Your task to perform on an android device: What's on my calendar today? Image 0: 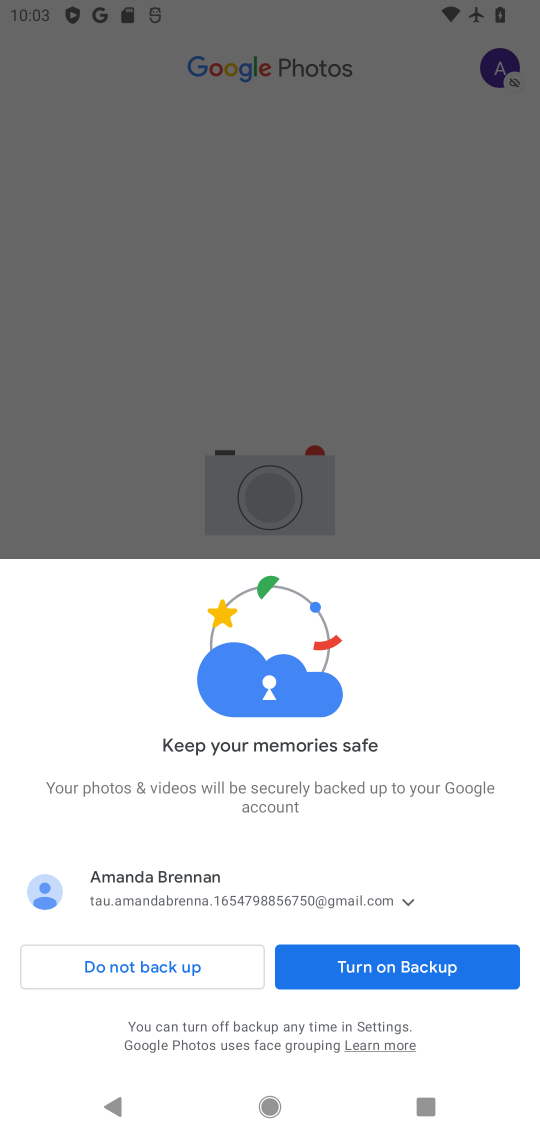
Step 0: press home button
Your task to perform on an android device: What's on my calendar today? Image 1: 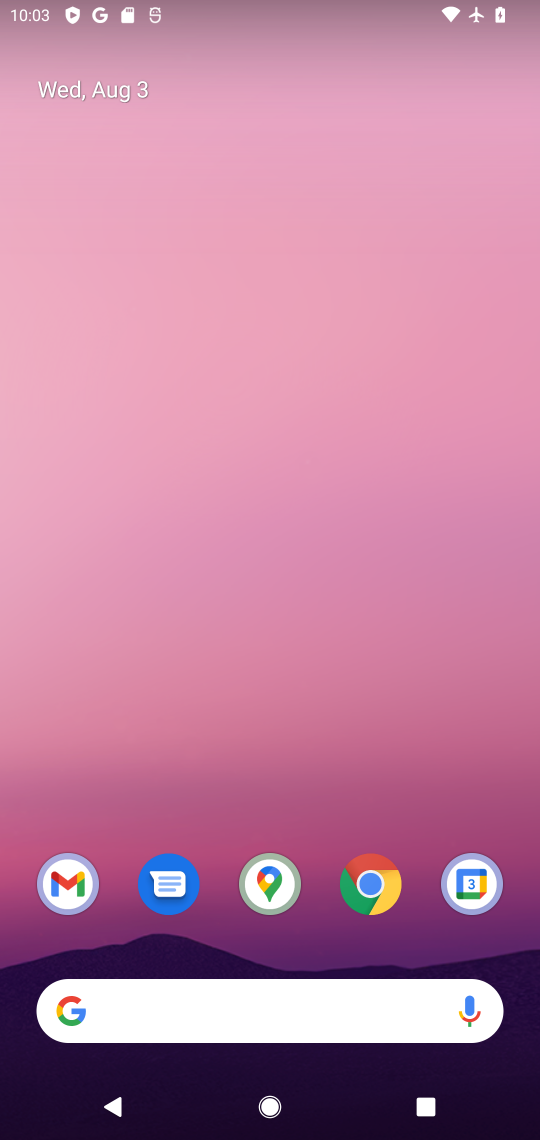
Step 1: click (489, 882)
Your task to perform on an android device: What's on my calendar today? Image 2: 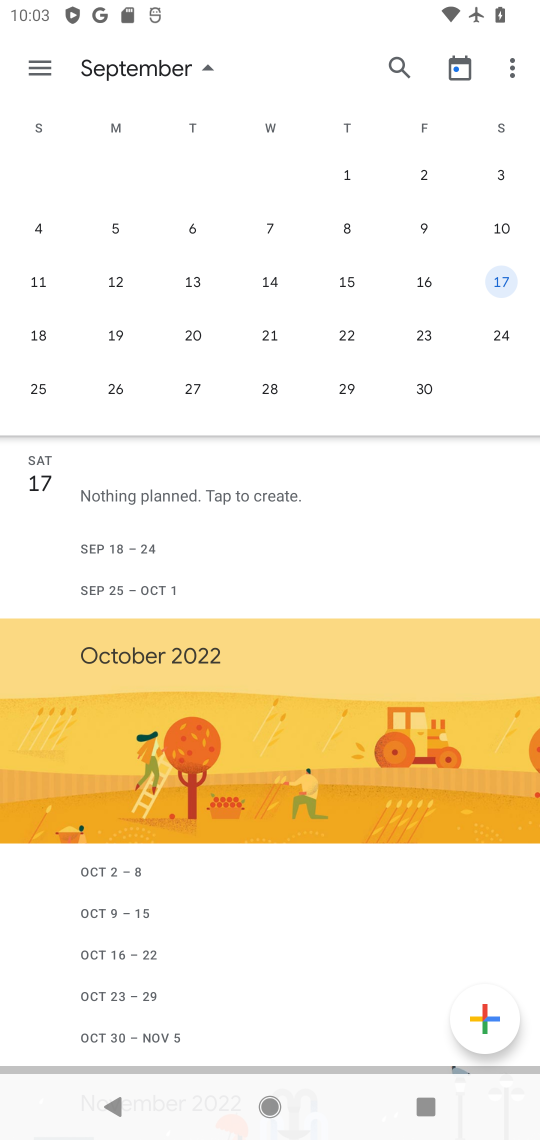
Step 2: drag from (74, 248) to (537, 316)
Your task to perform on an android device: What's on my calendar today? Image 3: 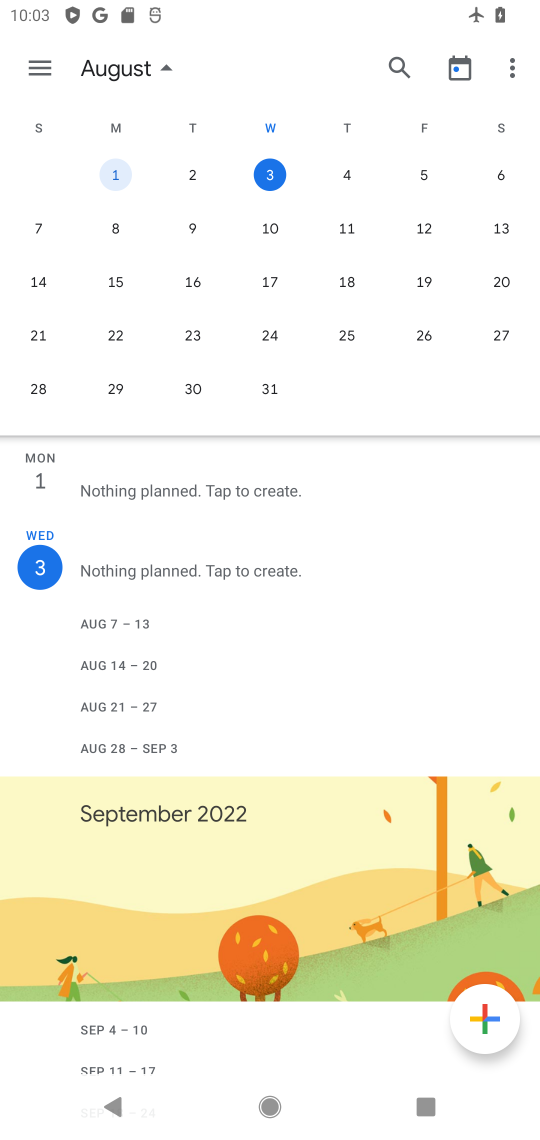
Step 3: click (275, 176)
Your task to perform on an android device: What's on my calendar today? Image 4: 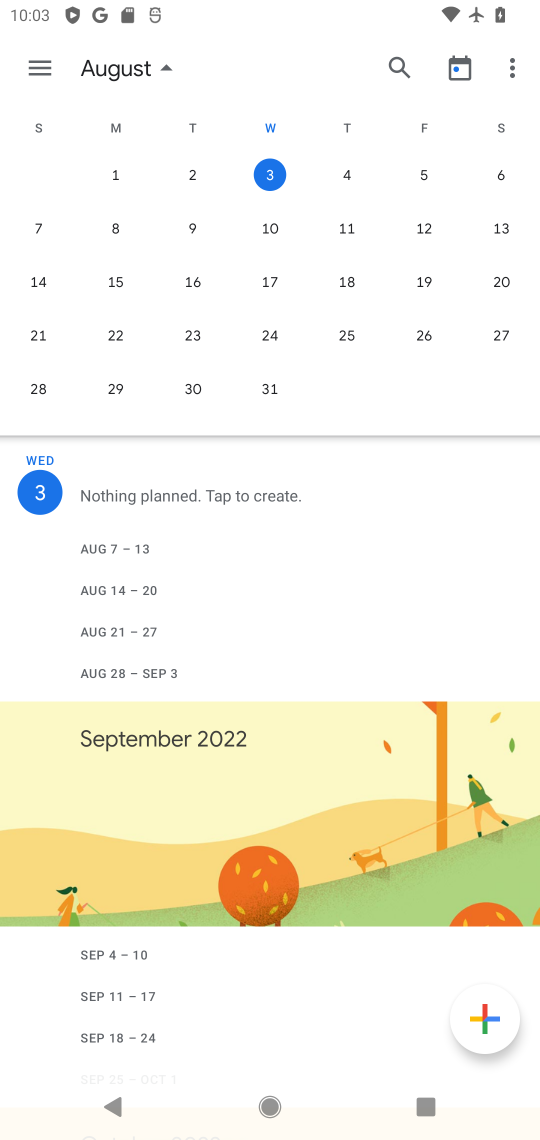
Step 4: task complete